Your task to perform on an android device: open a bookmark in the chrome app Image 0: 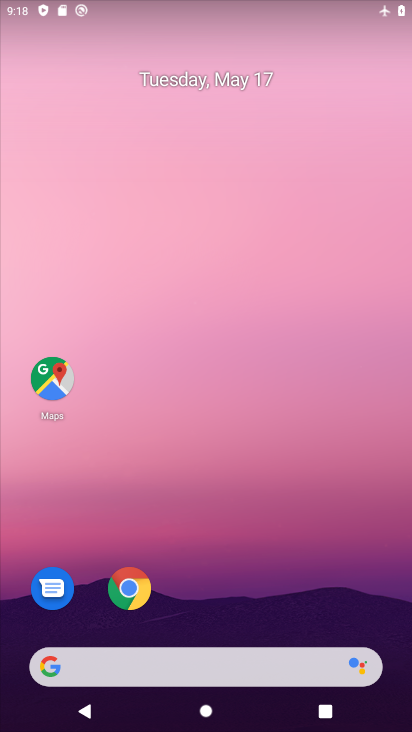
Step 0: click (132, 592)
Your task to perform on an android device: open a bookmark in the chrome app Image 1: 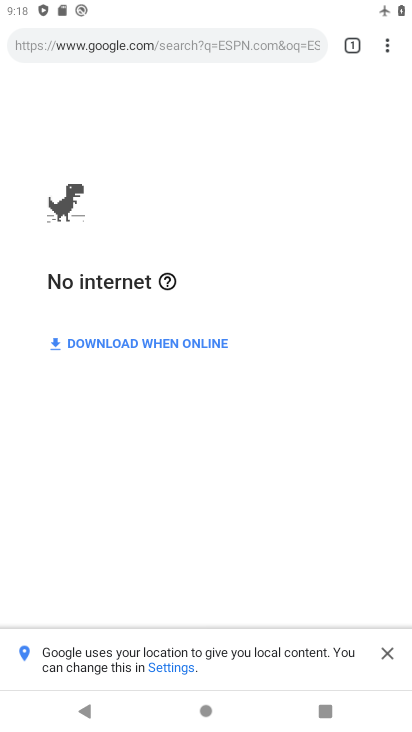
Step 1: click (386, 47)
Your task to perform on an android device: open a bookmark in the chrome app Image 2: 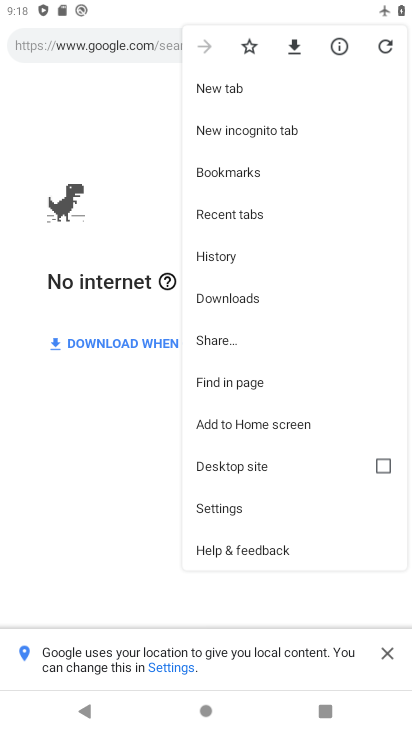
Step 2: click (247, 168)
Your task to perform on an android device: open a bookmark in the chrome app Image 3: 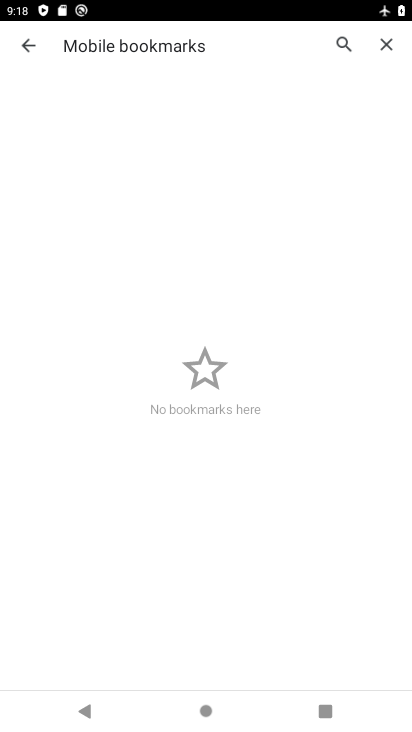
Step 3: task complete